Your task to perform on an android device: Open network settings Image 0: 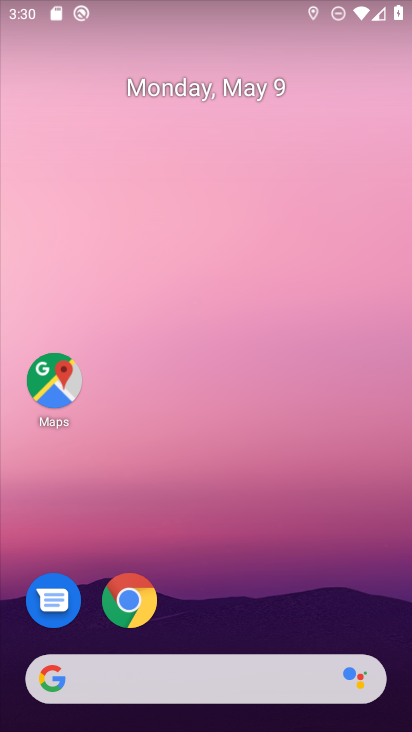
Step 0: drag from (214, 624) to (277, 235)
Your task to perform on an android device: Open network settings Image 1: 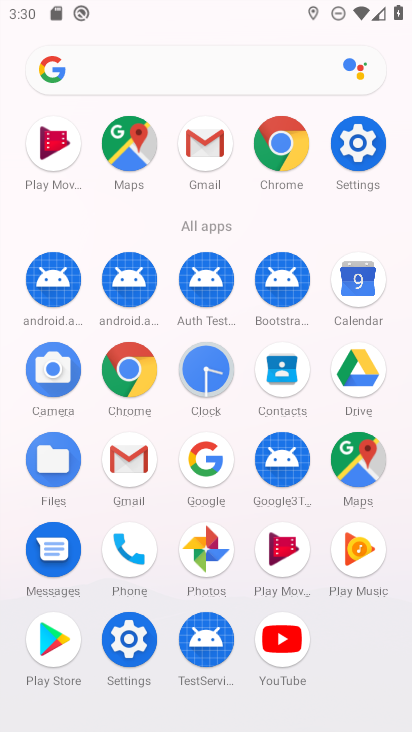
Step 1: click (371, 153)
Your task to perform on an android device: Open network settings Image 2: 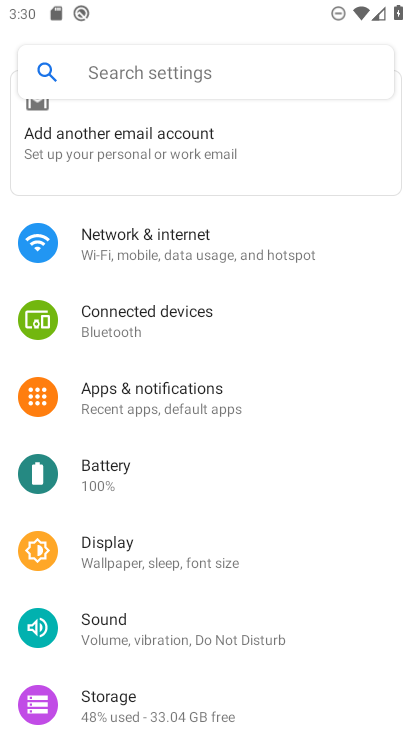
Step 2: drag from (168, 595) to (180, 487)
Your task to perform on an android device: Open network settings Image 3: 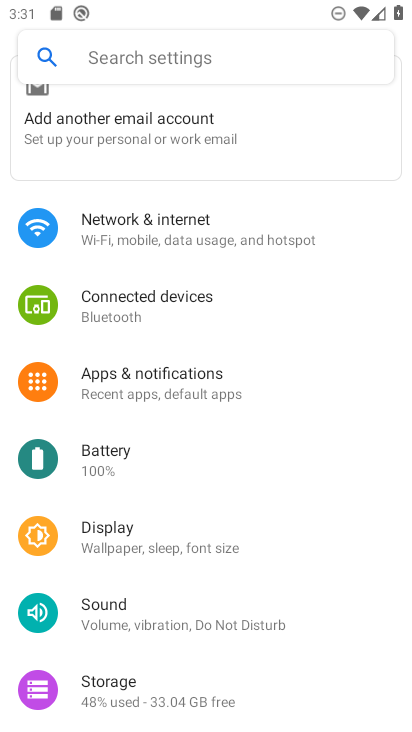
Step 3: click (187, 228)
Your task to perform on an android device: Open network settings Image 4: 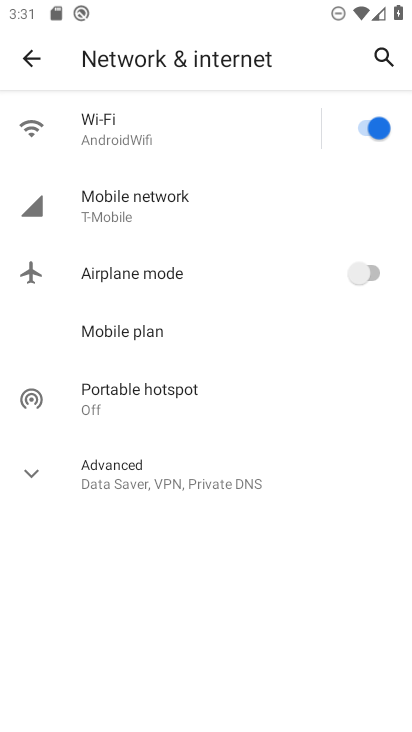
Step 4: task complete